Your task to perform on an android device: open app "Speedtest by Ookla" Image 0: 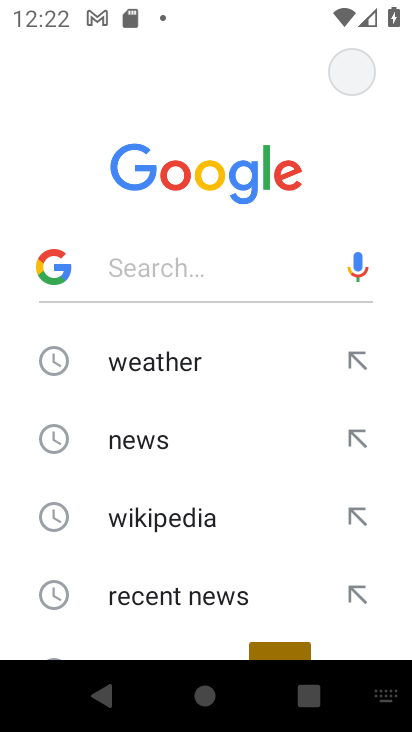
Step 0: press home button
Your task to perform on an android device: open app "Speedtest by Ookla" Image 1: 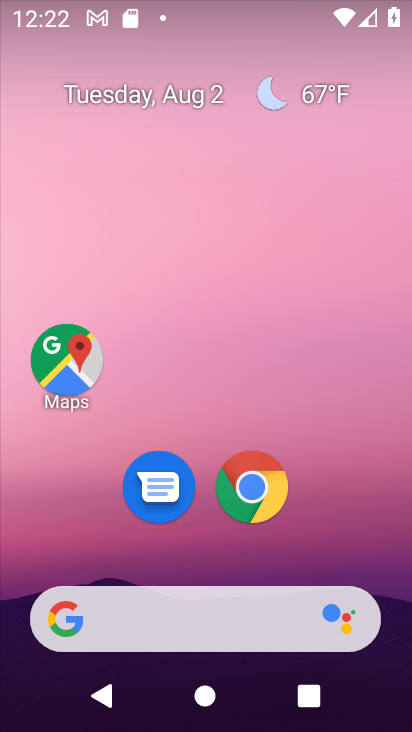
Step 1: drag from (225, 624) to (218, 135)
Your task to perform on an android device: open app "Speedtest by Ookla" Image 2: 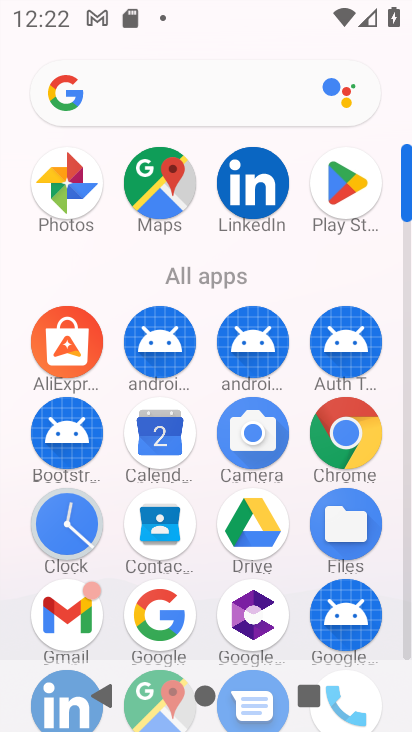
Step 2: click (351, 198)
Your task to perform on an android device: open app "Speedtest by Ookla" Image 3: 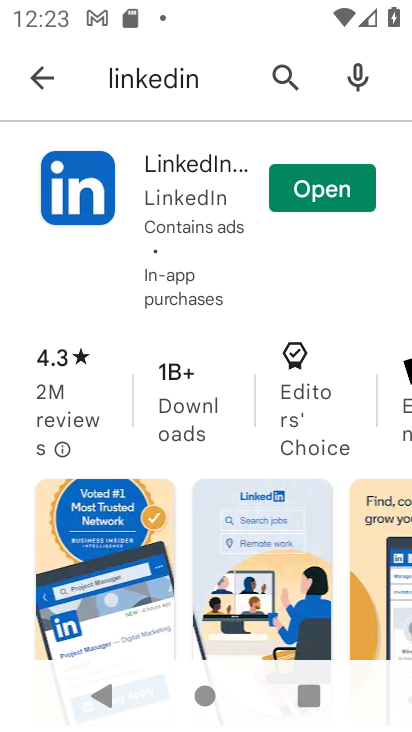
Step 3: click (41, 78)
Your task to perform on an android device: open app "Speedtest by Ookla" Image 4: 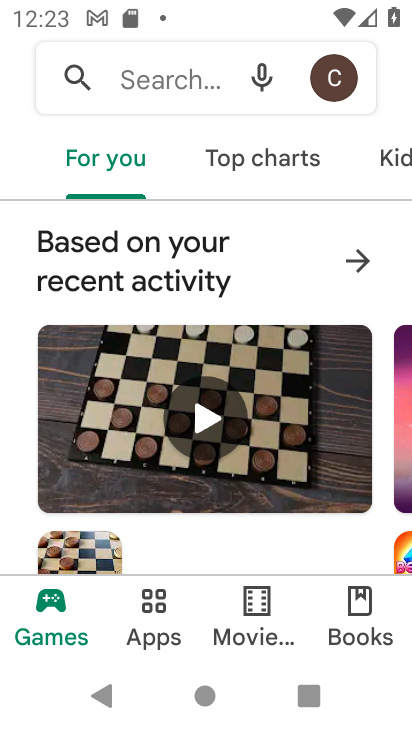
Step 4: click (116, 95)
Your task to perform on an android device: open app "Speedtest by Ookla" Image 5: 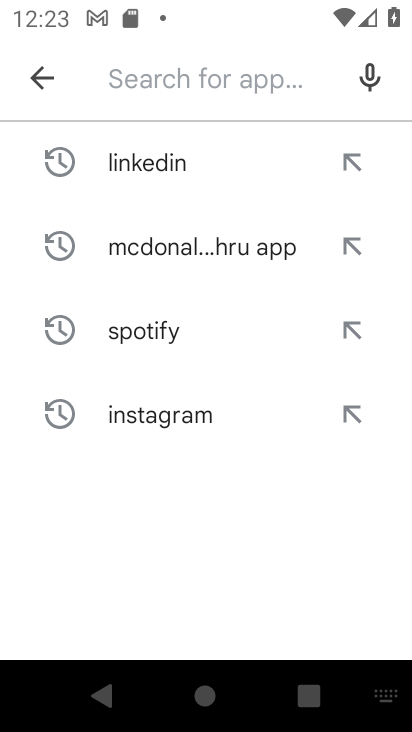
Step 5: type "Speedtest by Ookla"
Your task to perform on an android device: open app "Speedtest by Ookla" Image 6: 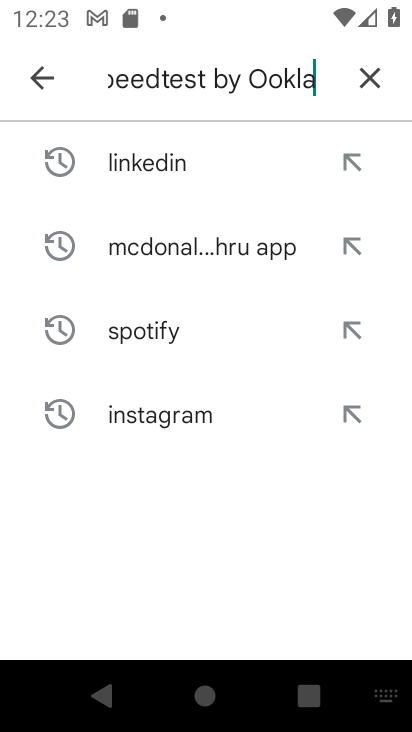
Step 6: type ""
Your task to perform on an android device: open app "Speedtest by Ookla" Image 7: 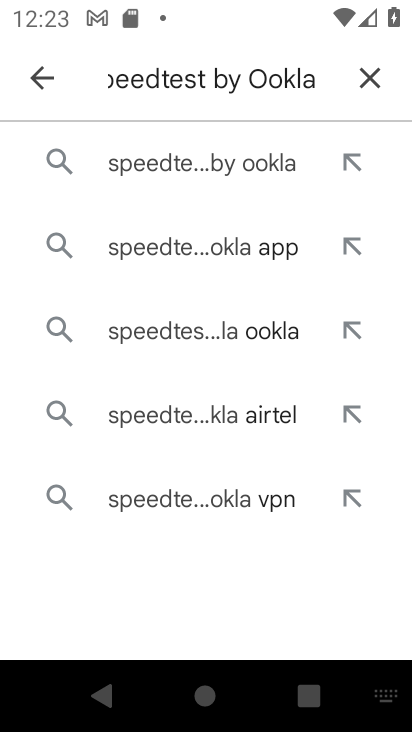
Step 7: click (222, 158)
Your task to perform on an android device: open app "Speedtest by Ookla" Image 8: 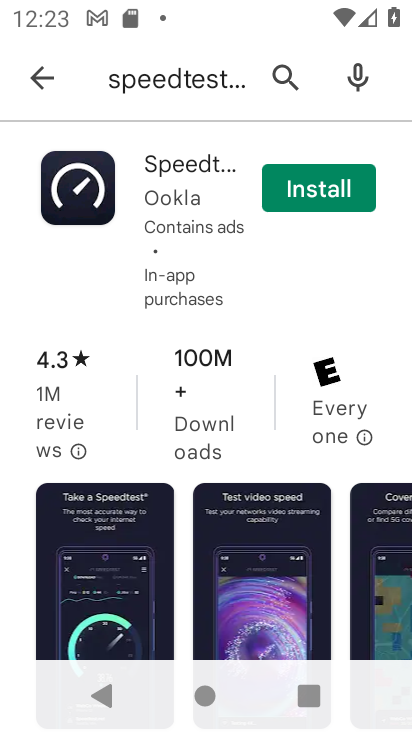
Step 8: task complete